Your task to perform on an android device: uninstall "Google Play Music" Image 0: 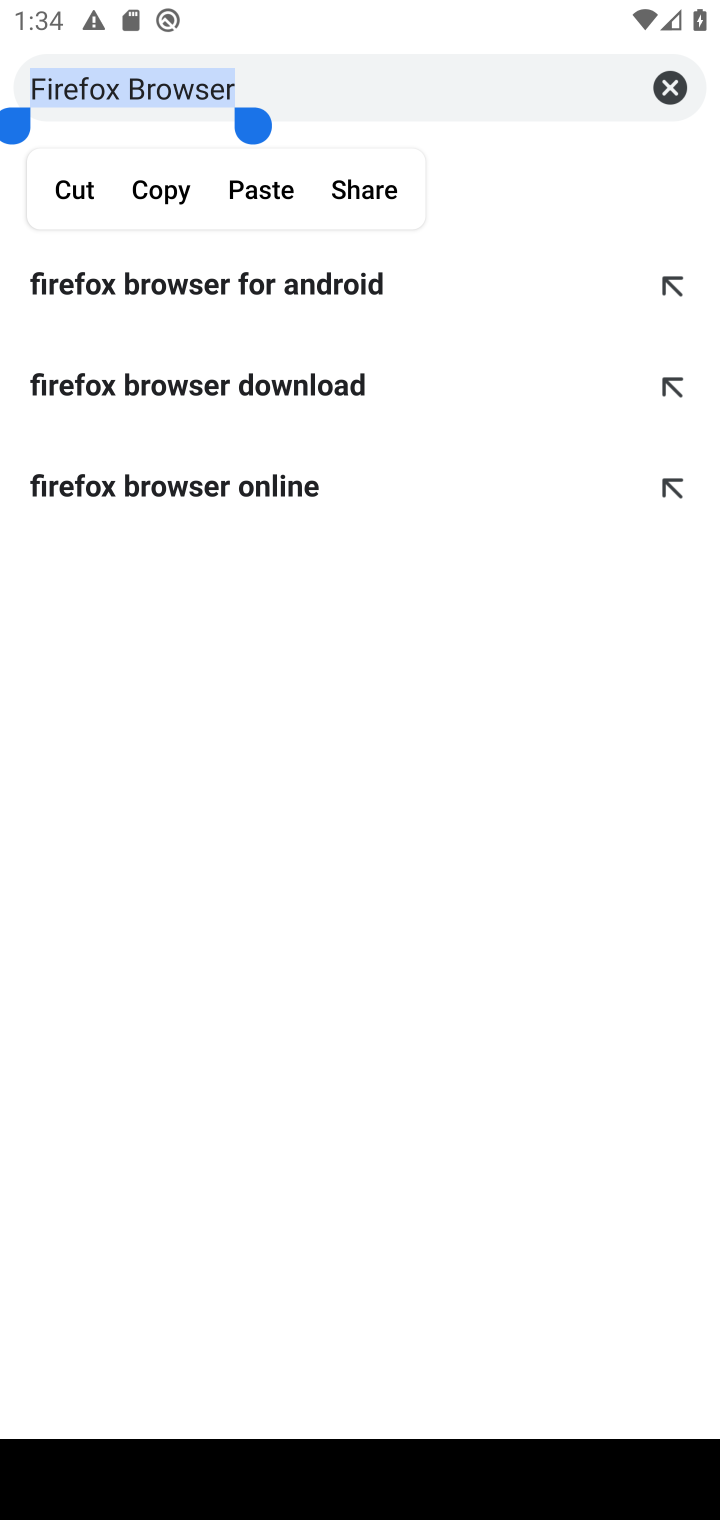
Step 0: press back button
Your task to perform on an android device: uninstall "Google Play Music" Image 1: 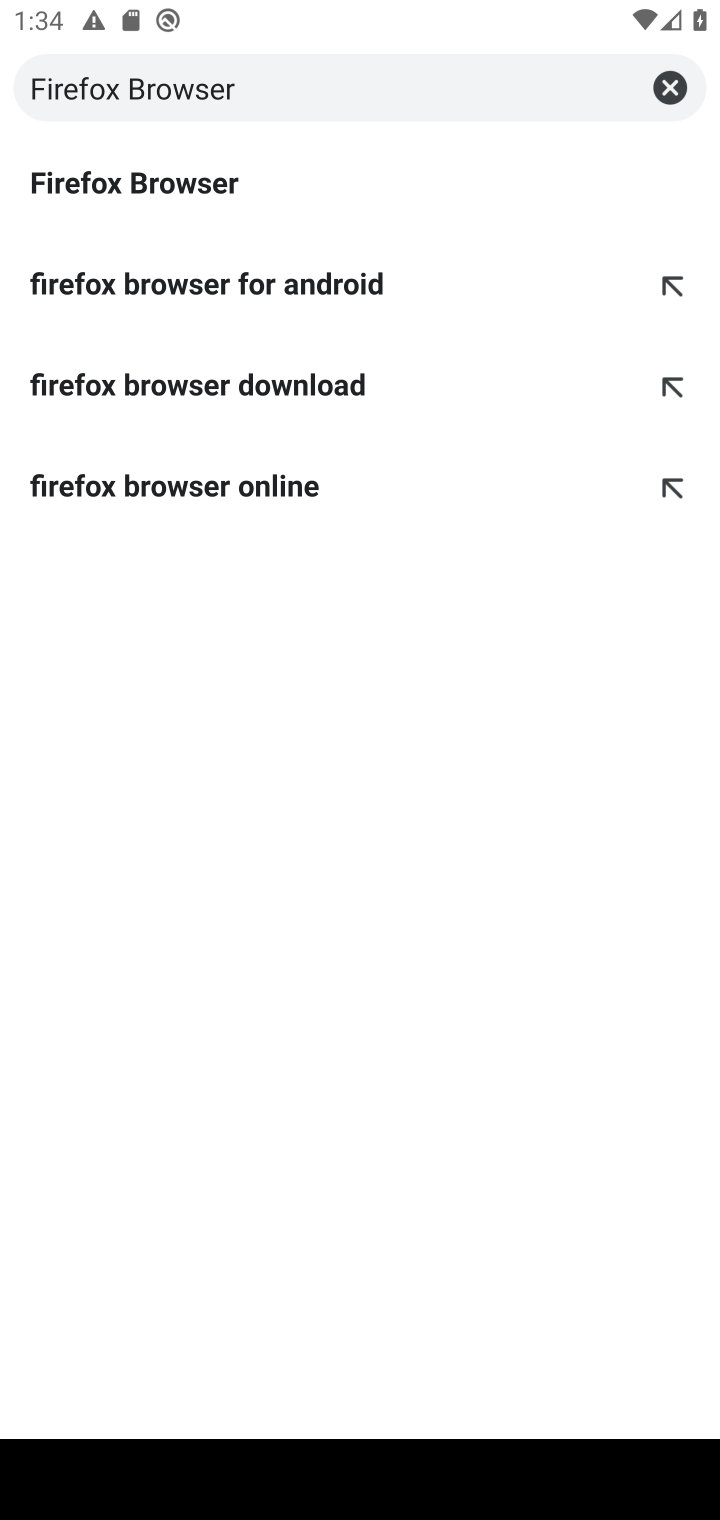
Step 1: press back button
Your task to perform on an android device: uninstall "Google Play Music" Image 2: 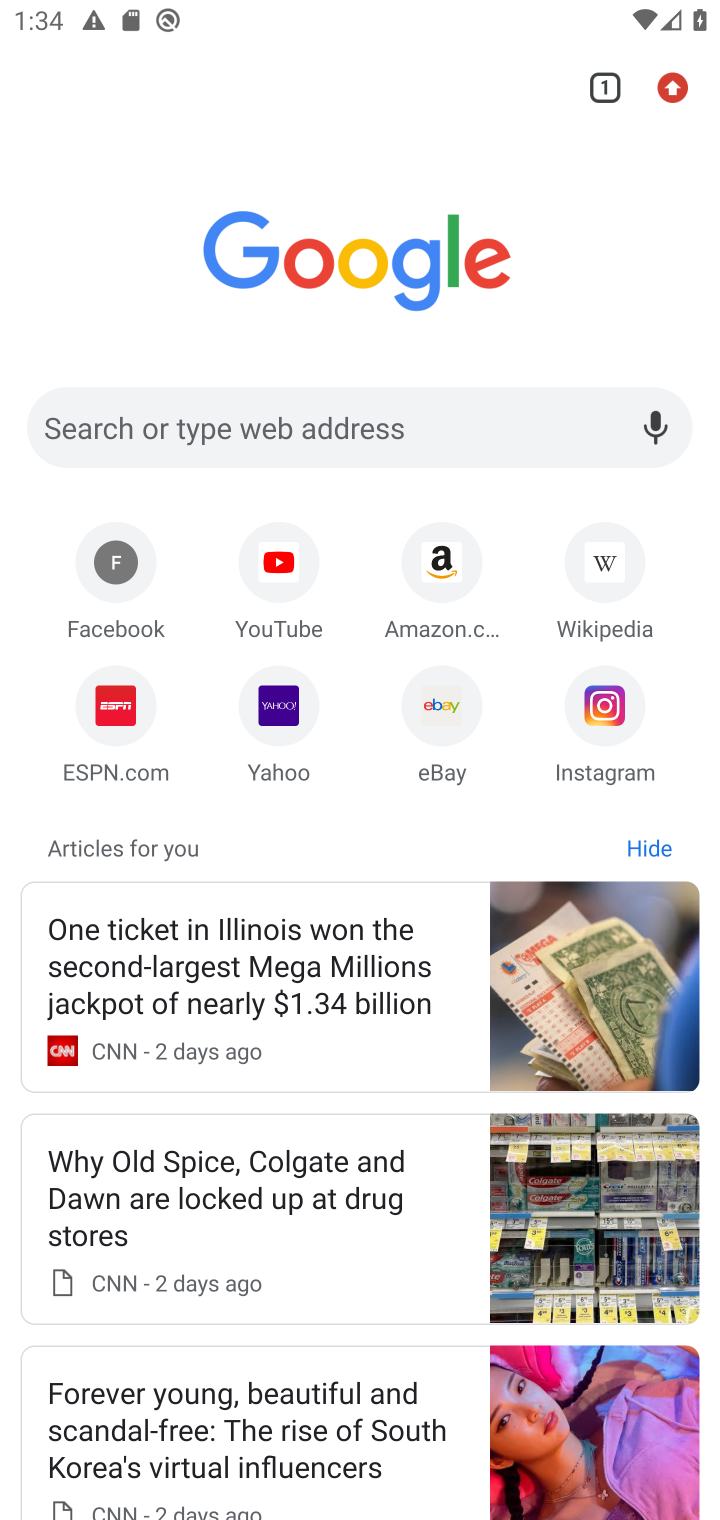
Step 2: press home button
Your task to perform on an android device: uninstall "Google Play Music" Image 3: 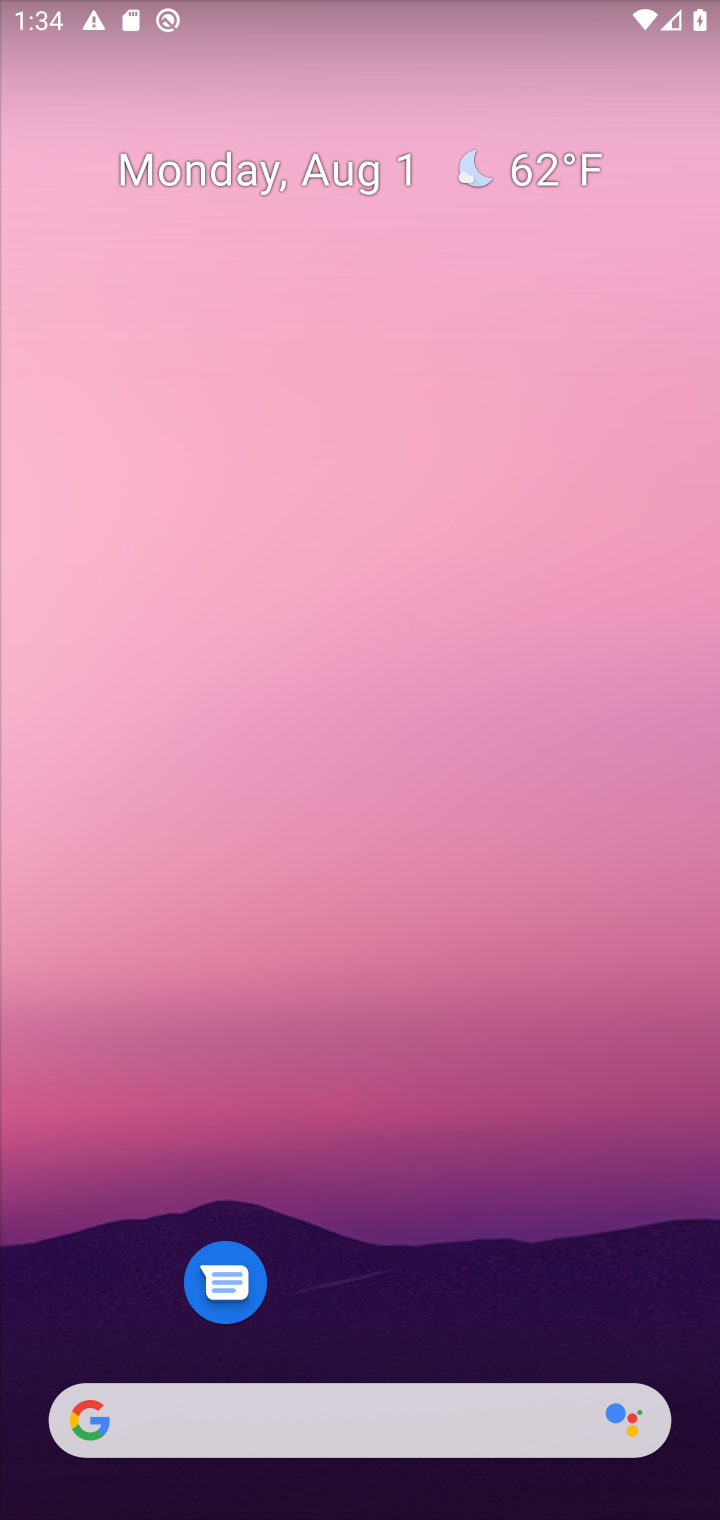
Step 3: drag from (370, 1345) to (304, 256)
Your task to perform on an android device: uninstall "Google Play Music" Image 4: 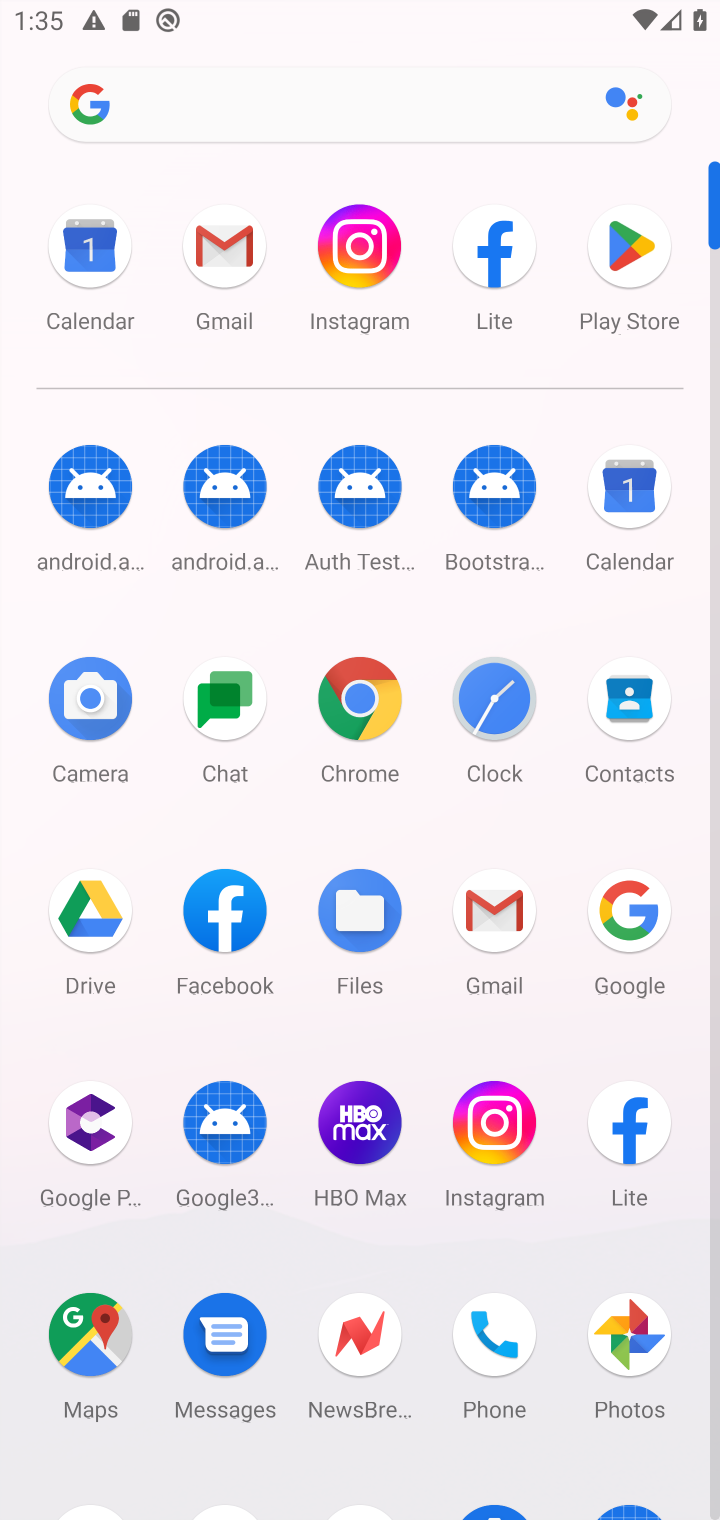
Step 4: click (607, 277)
Your task to perform on an android device: uninstall "Google Play Music" Image 5: 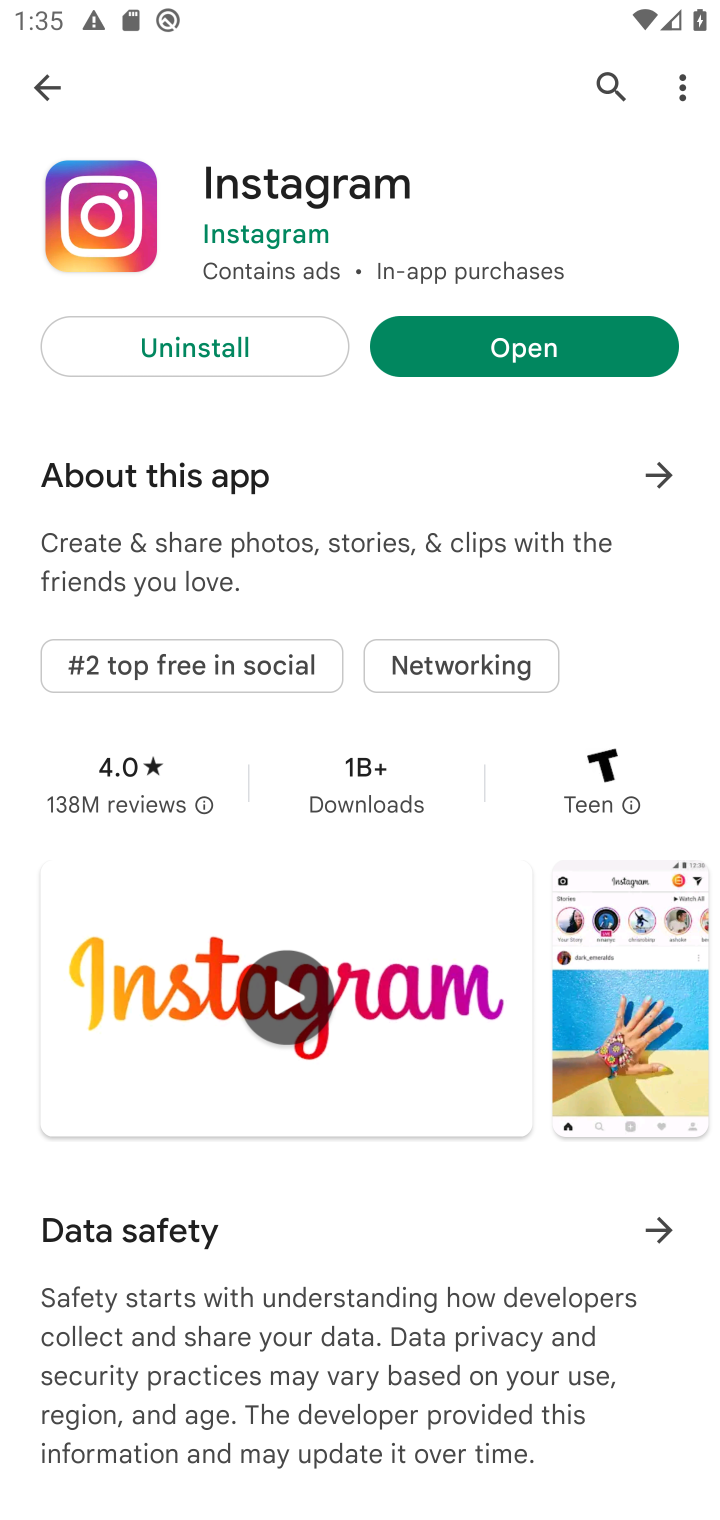
Step 5: click (59, 65)
Your task to perform on an android device: uninstall "Google Play Music" Image 6: 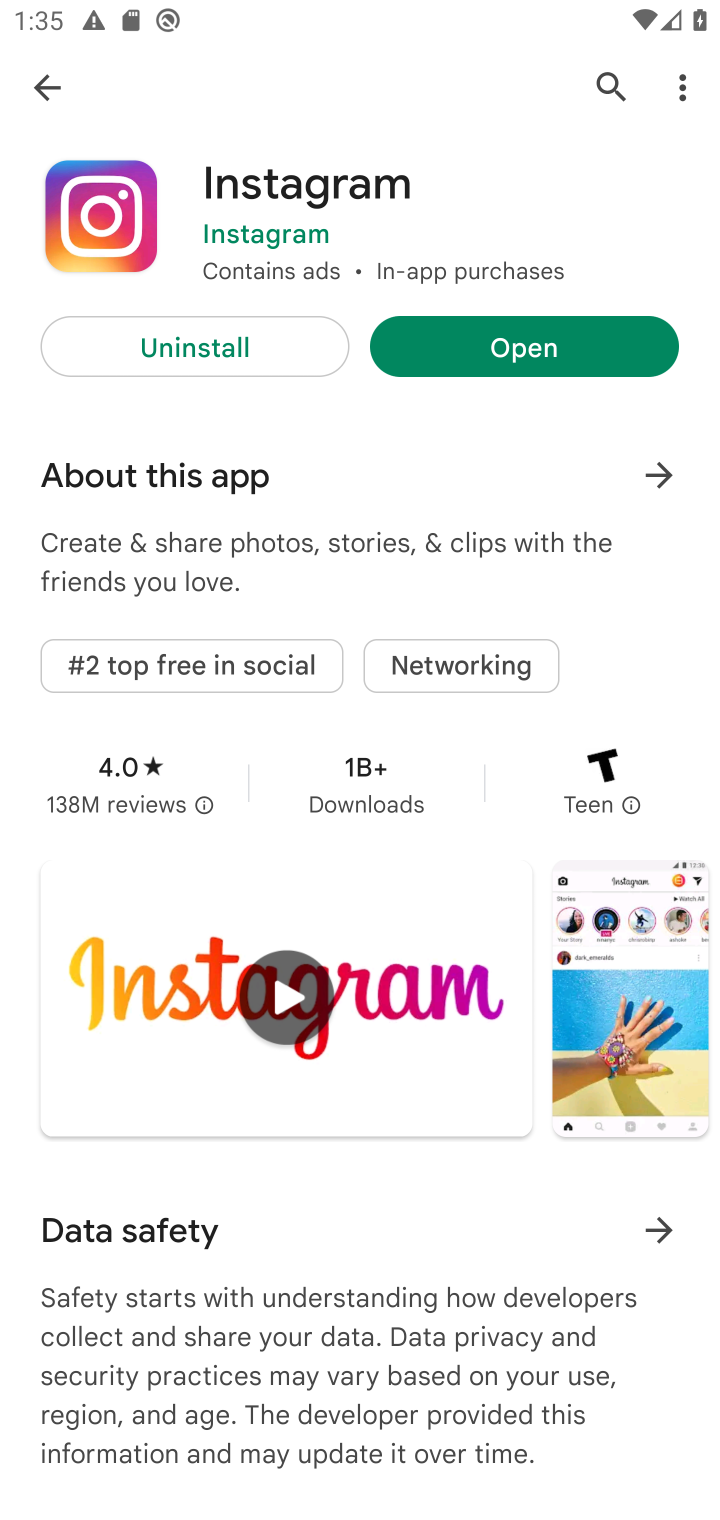
Step 6: click (585, 73)
Your task to perform on an android device: uninstall "Google Play Music" Image 7: 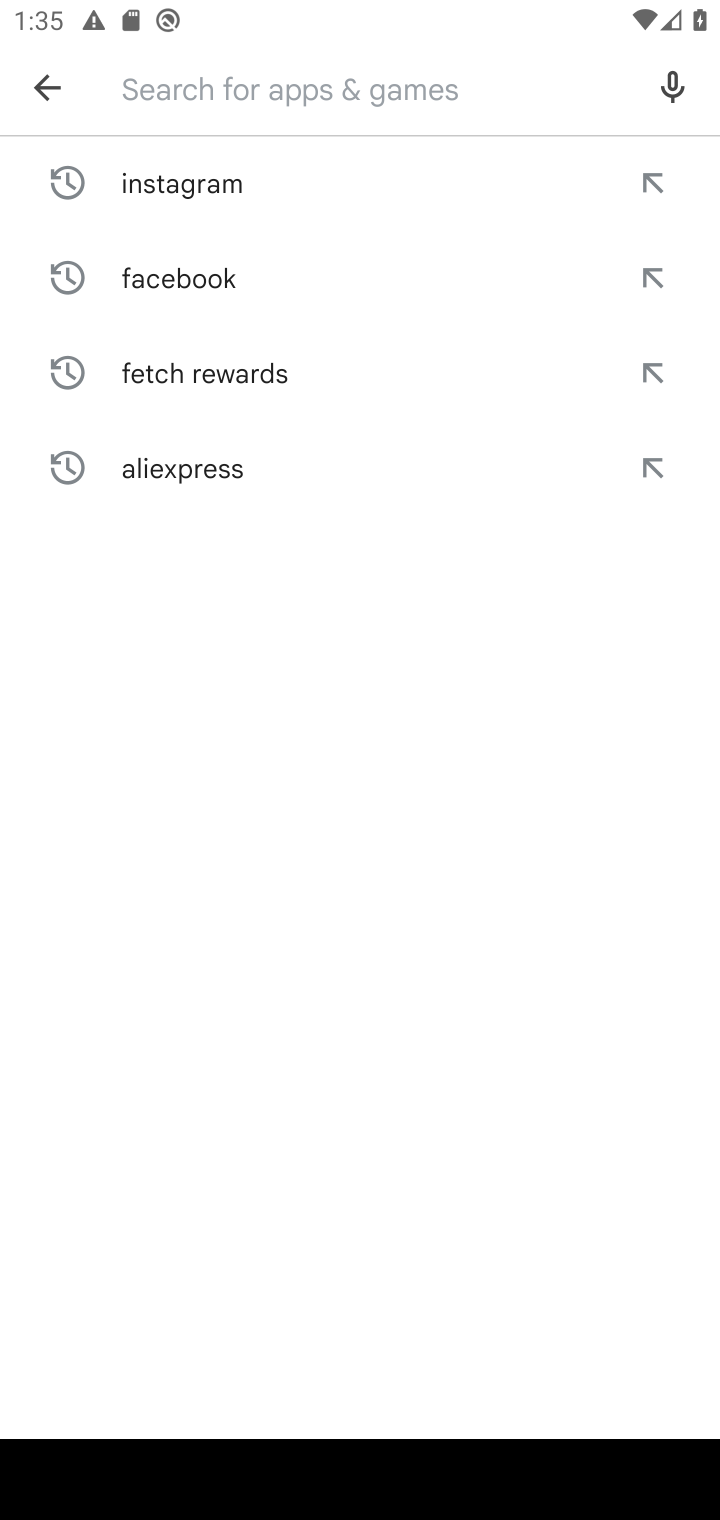
Step 7: type "Google Play Music"
Your task to perform on an android device: uninstall "Google Play Music" Image 8: 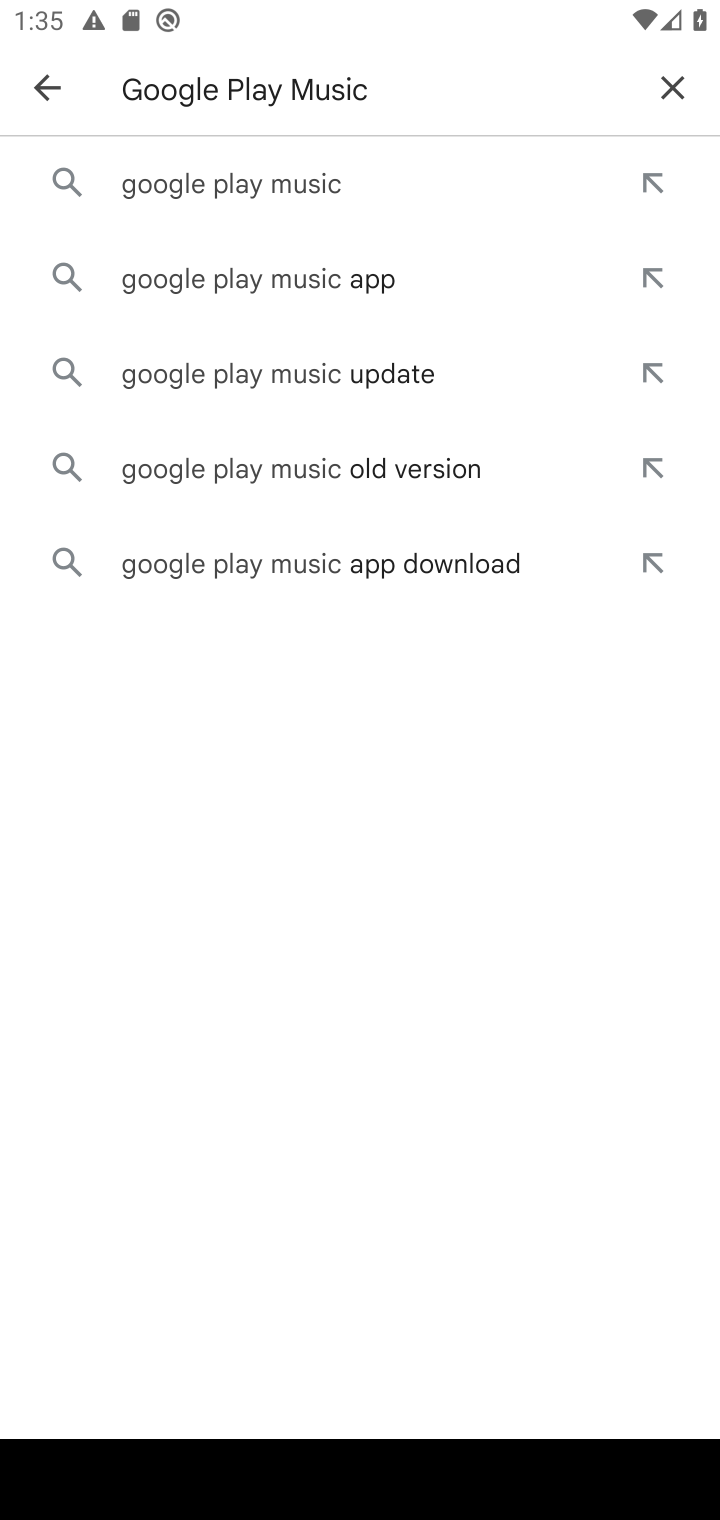
Step 8: click (248, 181)
Your task to perform on an android device: uninstall "Google Play Music" Image 9: 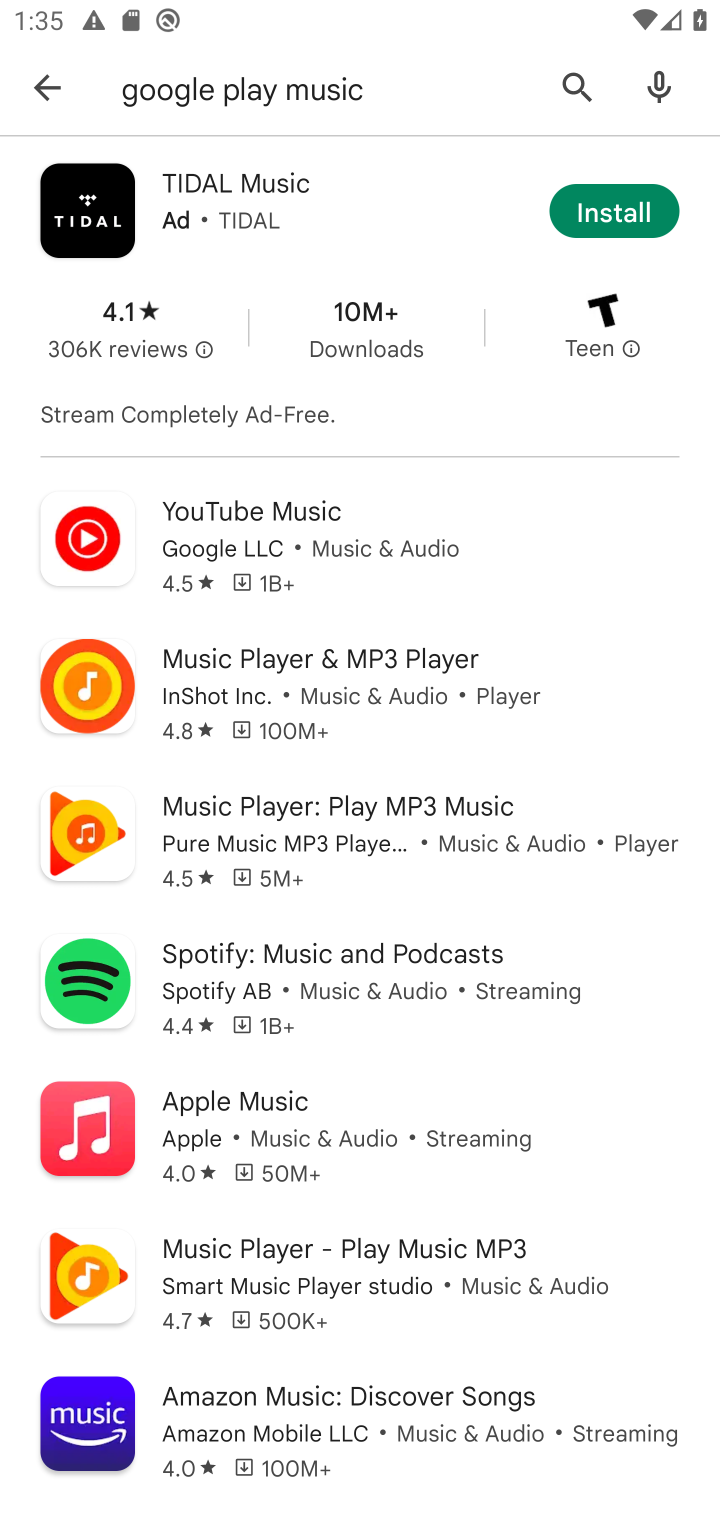
Step 9: task complete